Your task to perform on an android device: Turn on the flashlight Image 0: 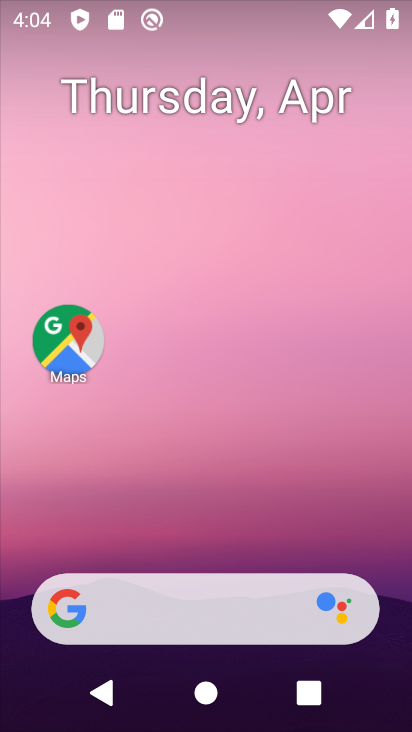
Step 0: drag from (218, 718) to (217, 130)
Your task to perform on an android device: Turn on the flashlight Image 1: 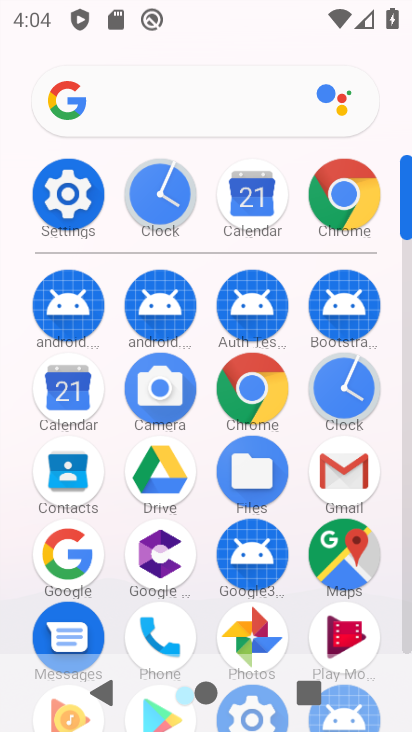
Step 1: click (60, 198)
Your task to perform on an android device: Turn on the flashlight Image 2: 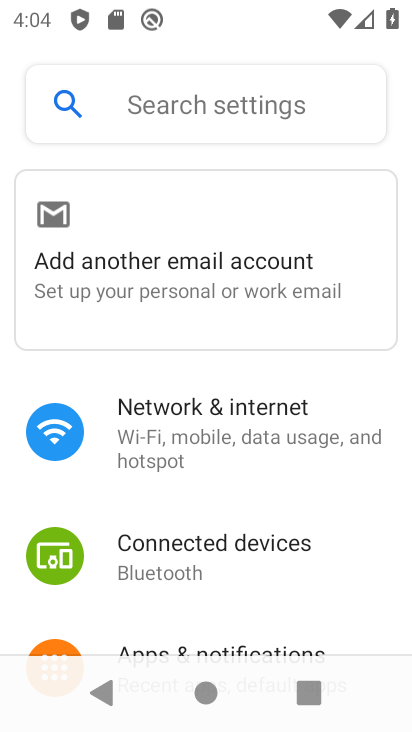
Step 2: task complete